Your task to perform on an android device: Open Yahoo.com Image 0: 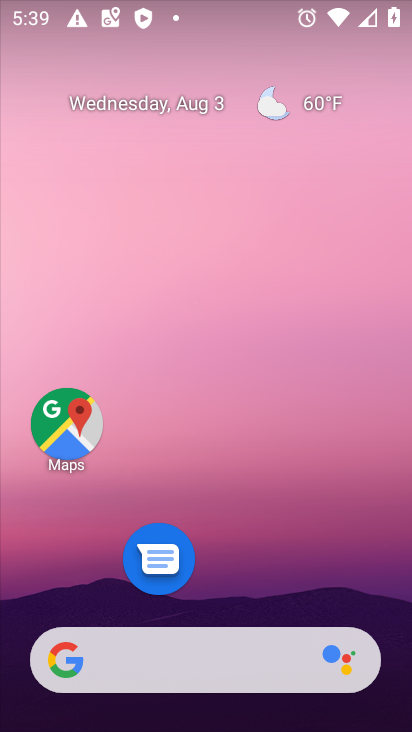
Step 0: drag from (171, 645) to (253, 114)
Your task to perform on an android device: Open Yahoo.com Image 1: 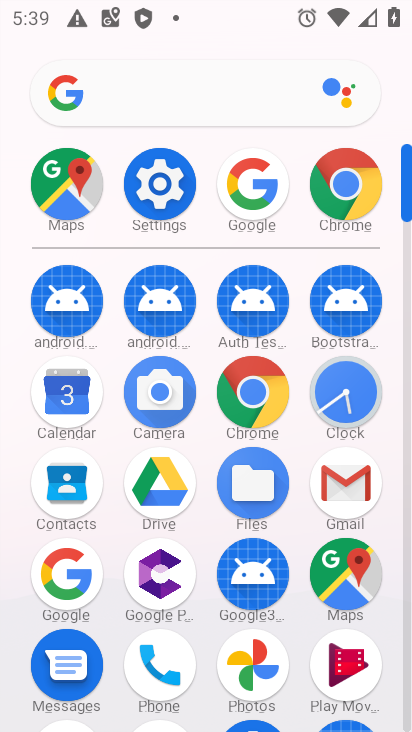
Step 1: click (350, 193)
Your task to perform on an android device: Open Yahoo.com Image 2: 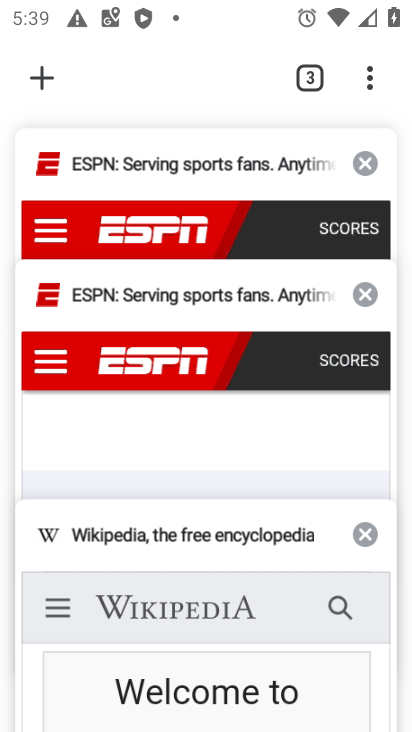
Step 2: click (34, 77)
Your task to perform on an android device: Open Yahoo.com Image 3: 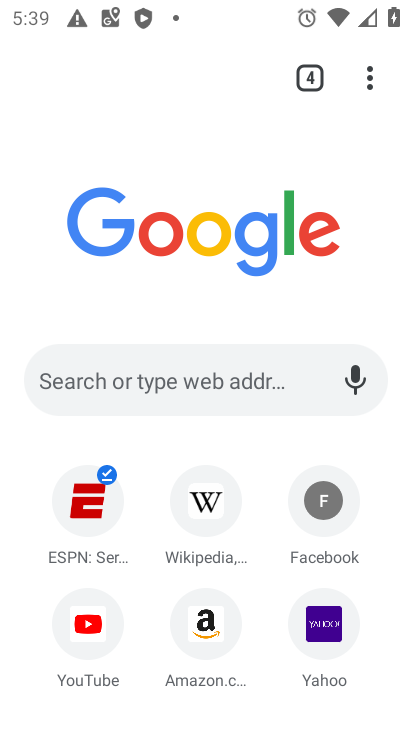
Step 3: click (333, 623)
Your task to perform on an android device: Open Yahoo.com Image 4: 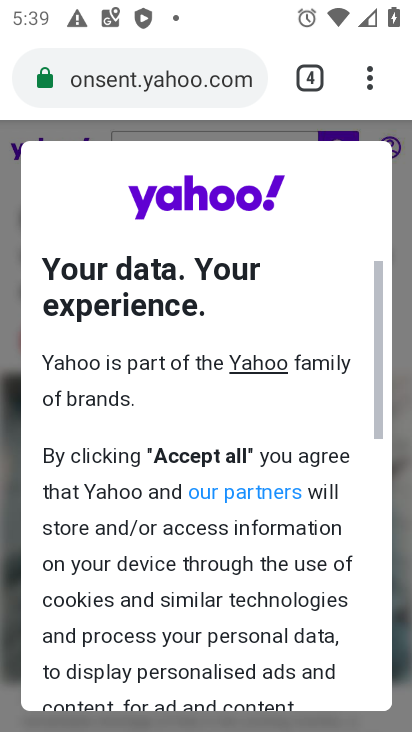
Step 4: task complete